Your task to perform on an android device: turn on notifications settings in the gmail app Image 0: 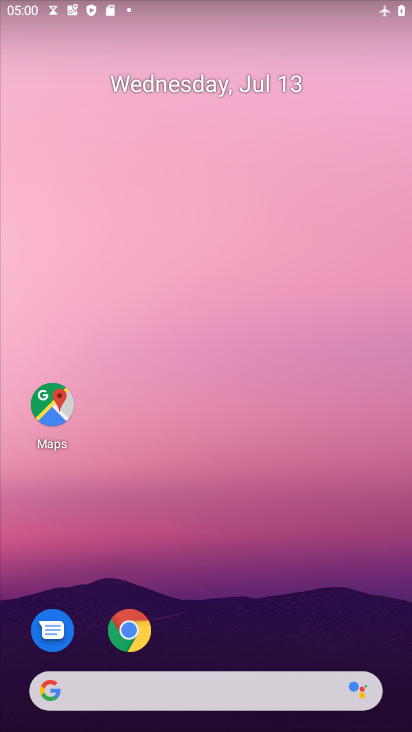
Step 0: drag from (240, 690) to (283, 240)
Your task to perform on an android device: turn on notifications settings in the gmail app Image 1: 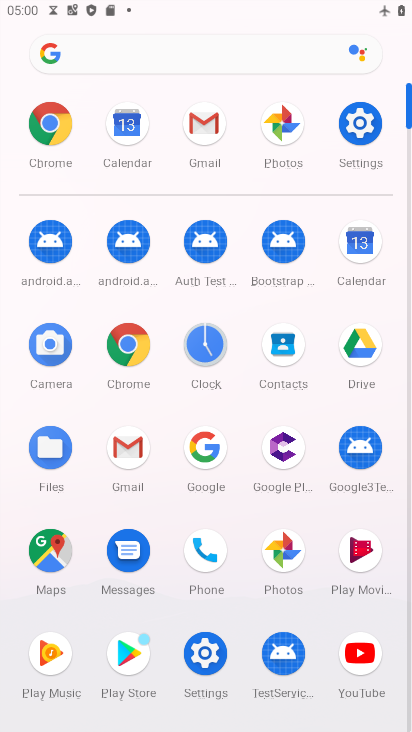
Step 1: click (131, 444)
Your task to perform on an android device: turn on notifications settings in the gmail app Image 2: 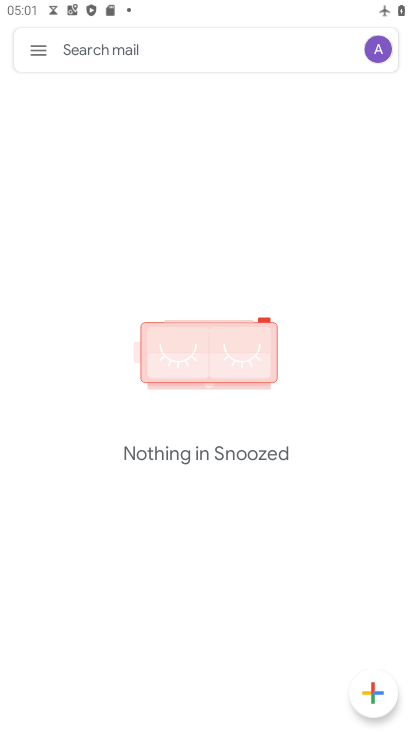
Step 2: click (44, 43)
Your task to perform on an android device: turn on notifications settings in the gmail app Image 3: 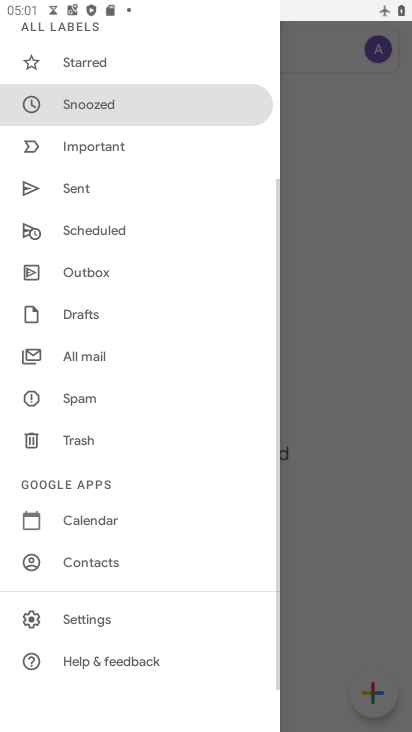
Step 3: click (106, 621)
Your task to perform on an android device: turn on notifications settings in the gmail app Image 4: 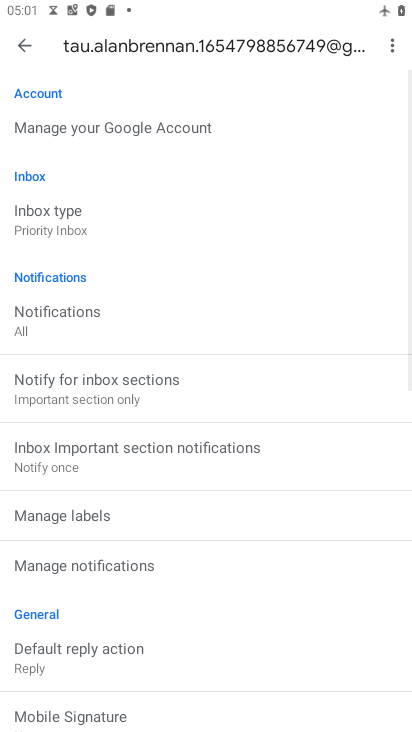
Step 4: click (79, 570)
Your task to perform on an android device: turn on notifications settings in the gmail app Image 5: 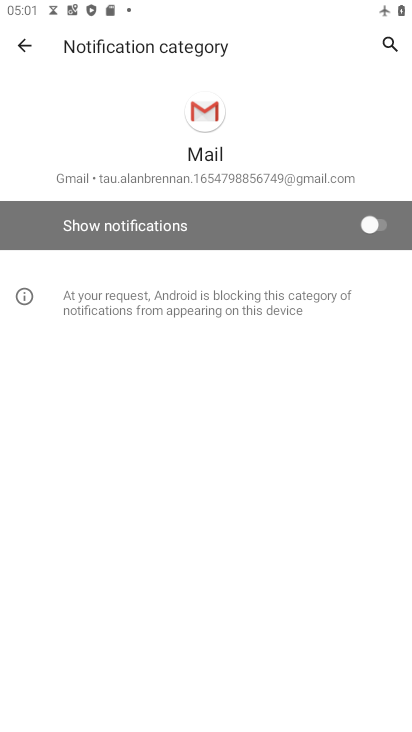
Step 5: click (378, 221)
Your task to perform on an android device: turn on notifications settings in the gmail app Image 6: 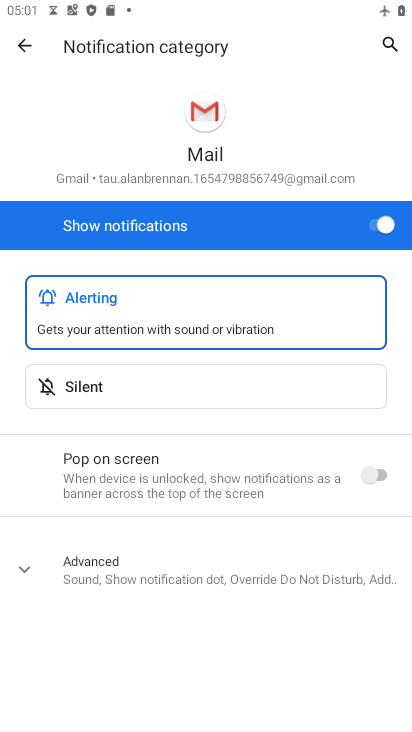
Step 6: task complete